Your task to perform on an android device: turn pop-ups off in chrome Image 0: 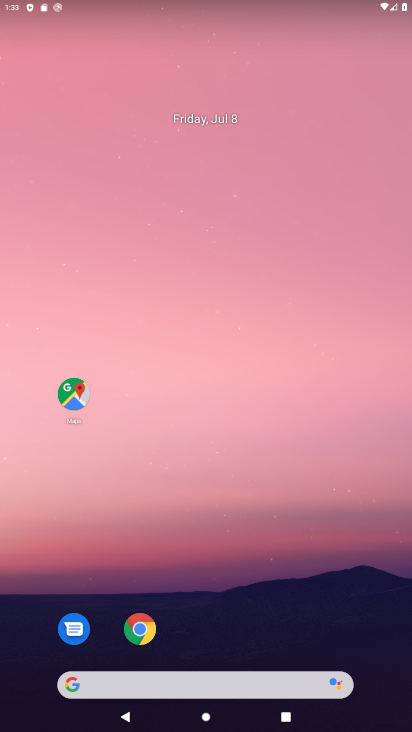
Step 0: click (137, 626)
Your task to perform on an android device: turn pop-ups off in chrome Image 1: 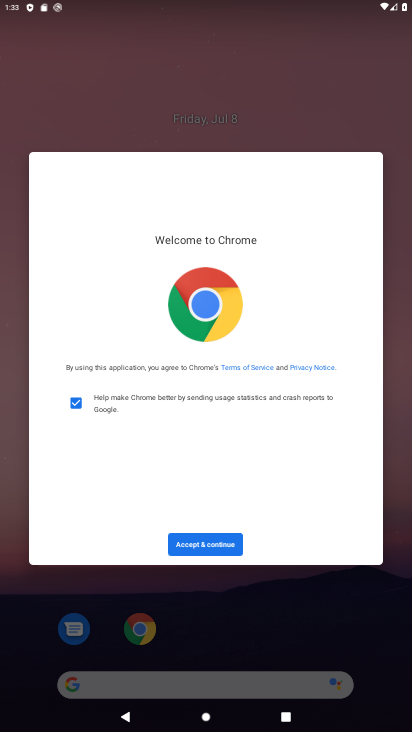
Step 1: click (217, 545)
Your task to perform on an android device: turn pop-ups off in chrome Image 2: 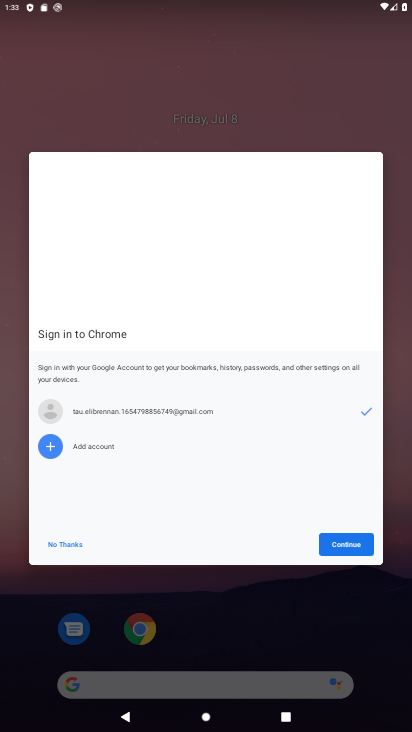
Step 2: click (344, 533)
Your task to perform on an android device: turn pop-ups off in chrome Image 3: 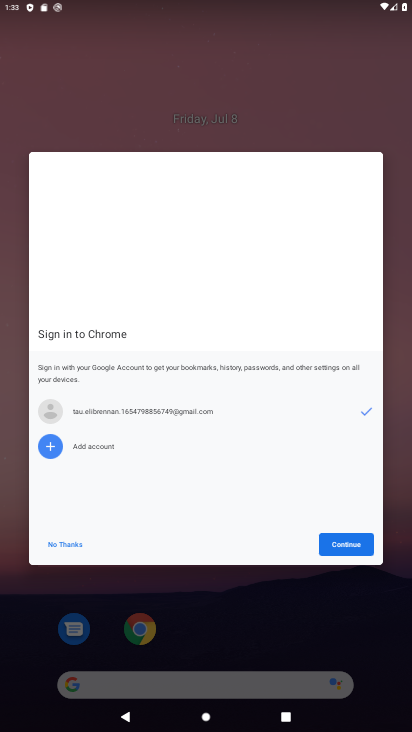
Step 3: click (355, 543)
Your task to perform on an android device: turn pop-ups off in chrome Image 4: 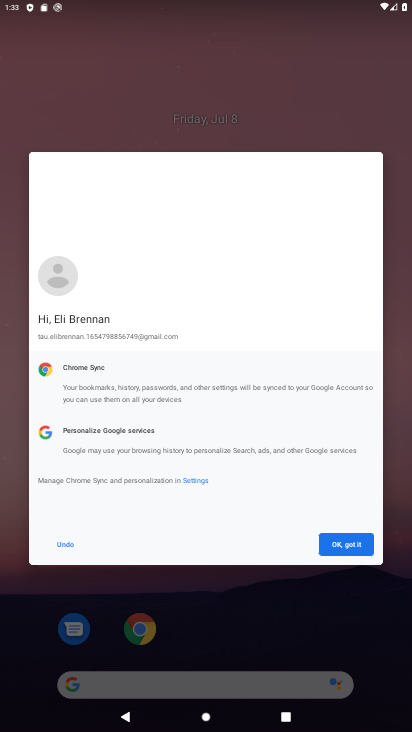
Step 4: click (355, 543)
Your task to perform on an android device: turn pop-ups off in chrome Image 5: 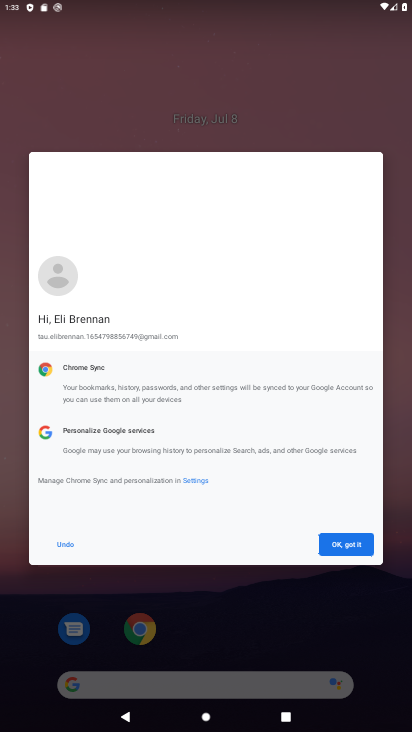
Step 5: click (355, 543)
Your task to perform on an android device: turn pop-ups off in chrome Image 6: 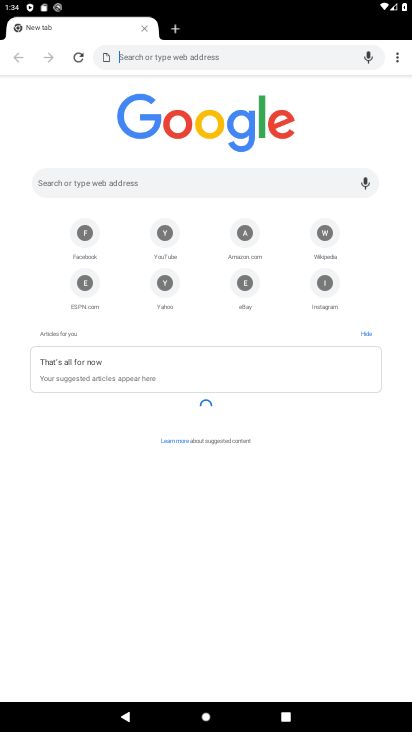
Step 6: click (396, 60)
Your task to perform on an android device: turn pop-ups off in chrome Image 7: 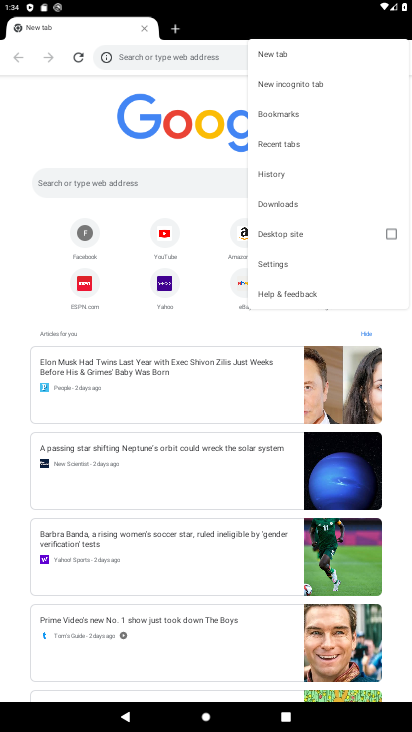
Step 7: click (296, 262)
Your task to perform on an android device: turn pop-ups off in chrome Image 8: 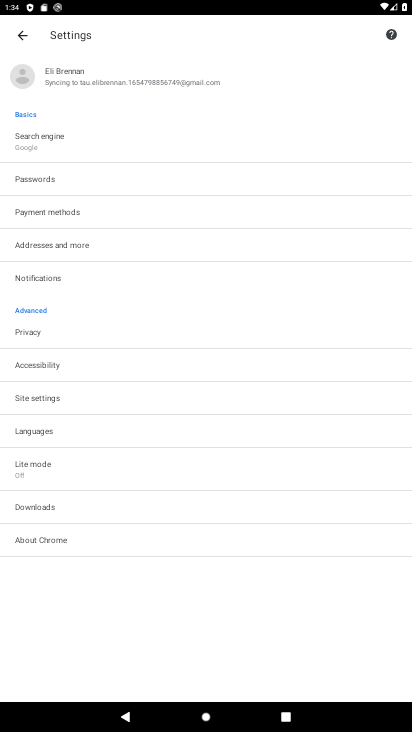
Step 8: click (49, 391)
Your task to perform on an android device: turn pop-ups off in chrome Image 9: 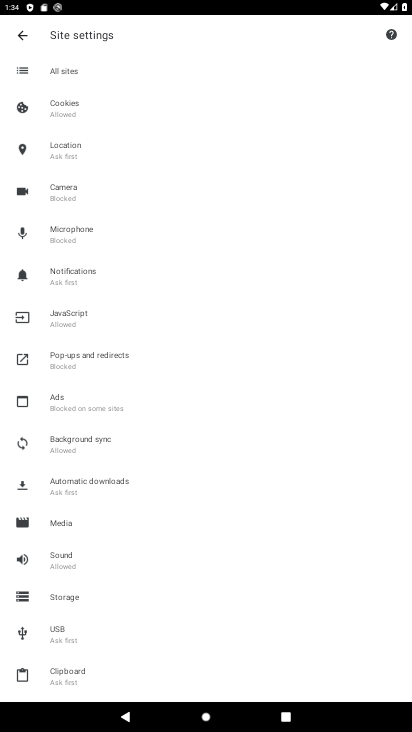
Step 9: click (155, 357)
Your task to perform on an android device: turn pop-ups off in chrome Image 10: 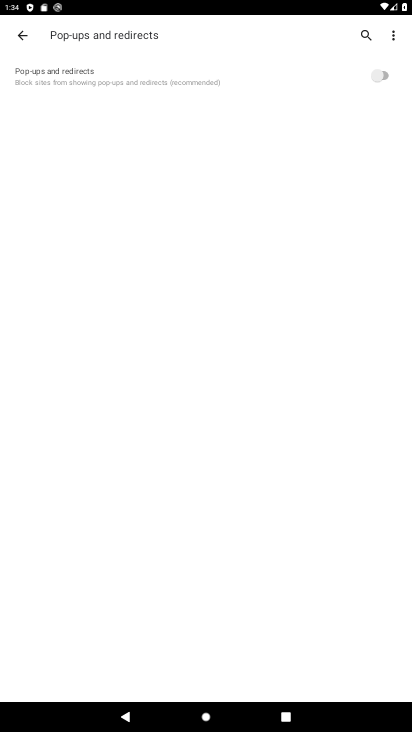
Step 10: task complete